Your task to perform on an android device: turn pop-ups off in chrome Image 0: 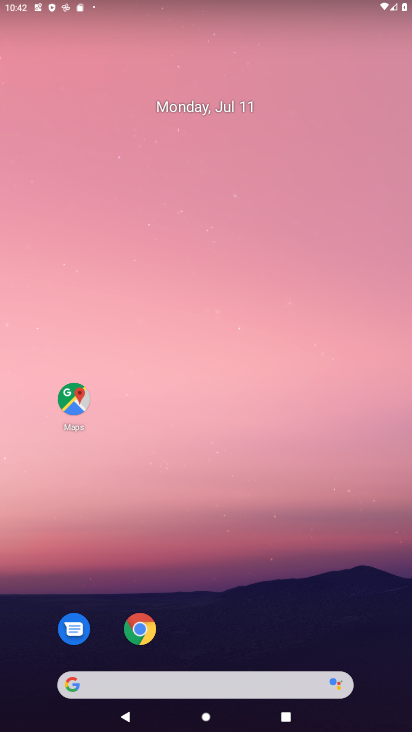
Step 0: click (142, 623)
Your task to perform on an android device: turn pop-ups off in chrome Image 1: 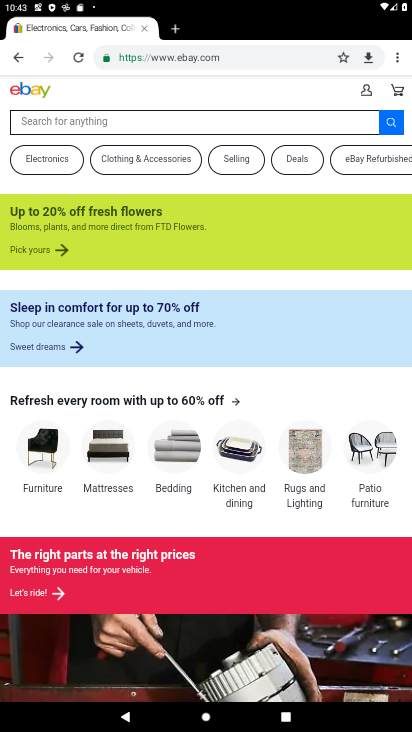
Step 1: click (392, 62)
Your task to perform on an android device: turn pop-ups off in chrome Image 2: 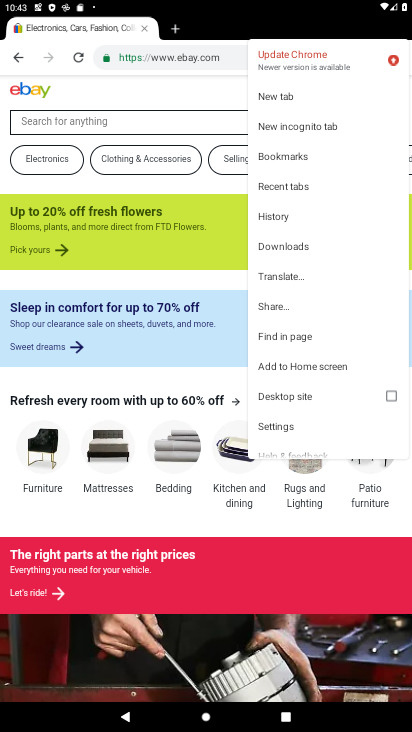
Step 2: click (317, 417)
Your task to perform on an android device: turn pop-ups off in chrome Image 3: 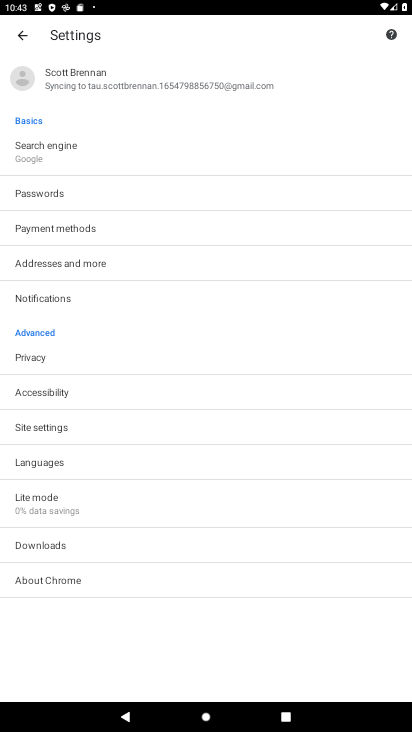
Step 3: click (146, 428)
Your task to perform on an android device: turn pop-ups off in chrome Image 4: 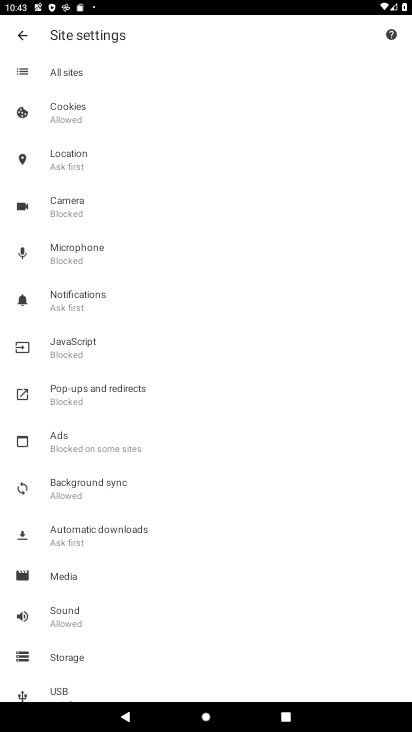
Step 4: click (182, 394)
Your task to perform on an android device: turn pop-ups off in chrome Image 5: 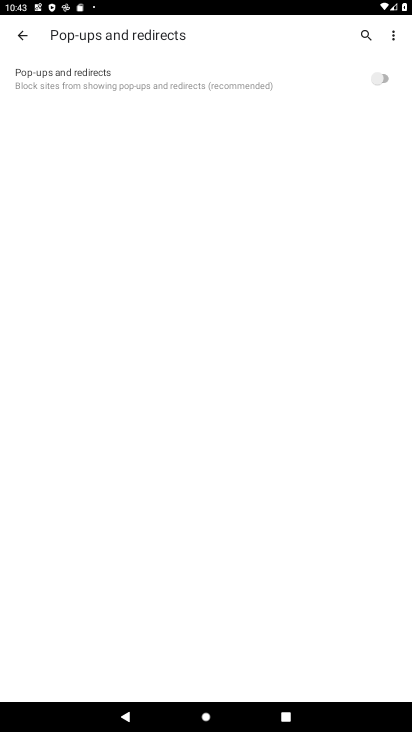
Step 5: click (391, 85)
Your task to perform on an android device: turn pop-ups off in chrome Image 6: 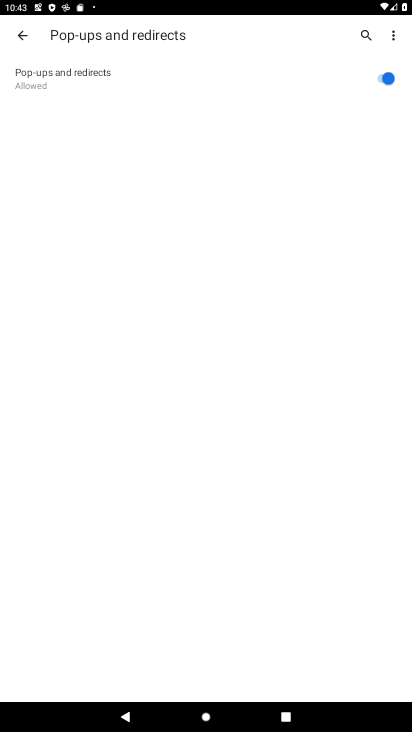
Step 6: task complete